Your task to perform on an android device: set the timer Image 0: 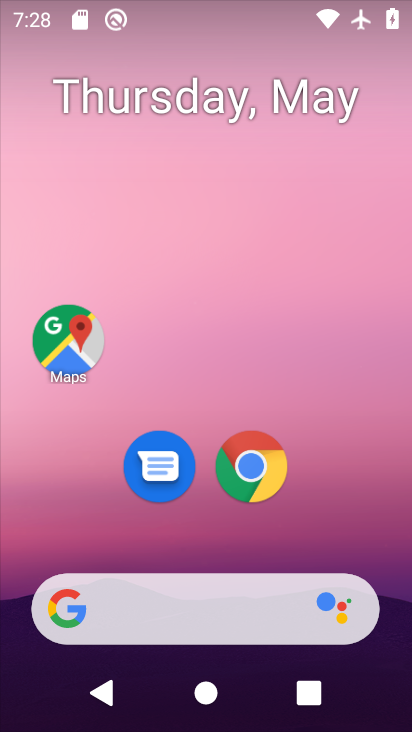
Step 0: drag from (386, 536) to (323, 159)
Your task to perform on an android device: set the timer Image 1: 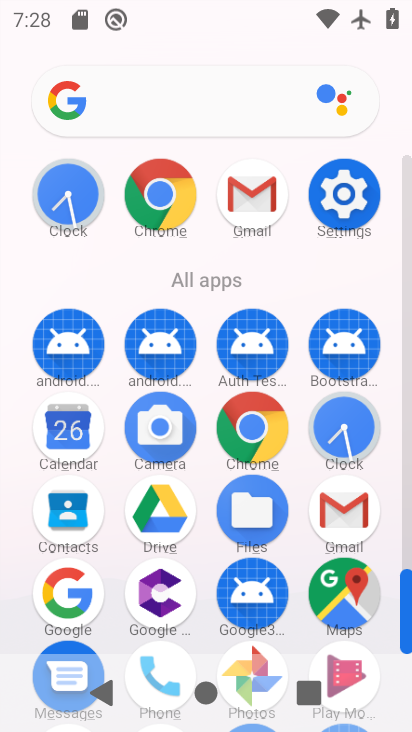
Step 1: click (334, 214)
Your task to perform on an android device: set the timer Image 2: 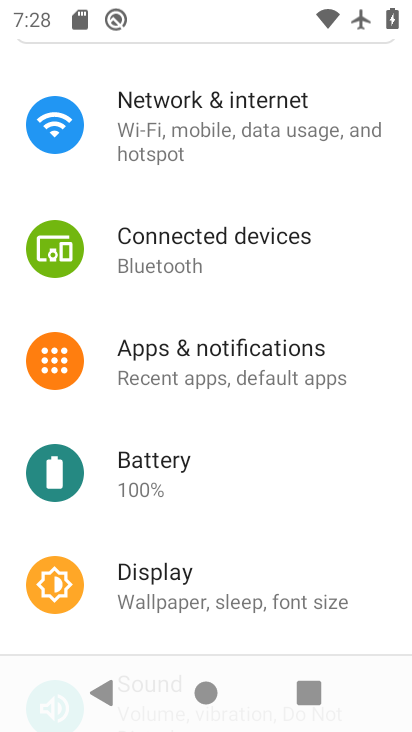
Step 2: press home button
Your task to perform on an android device: set the timer Image 3: 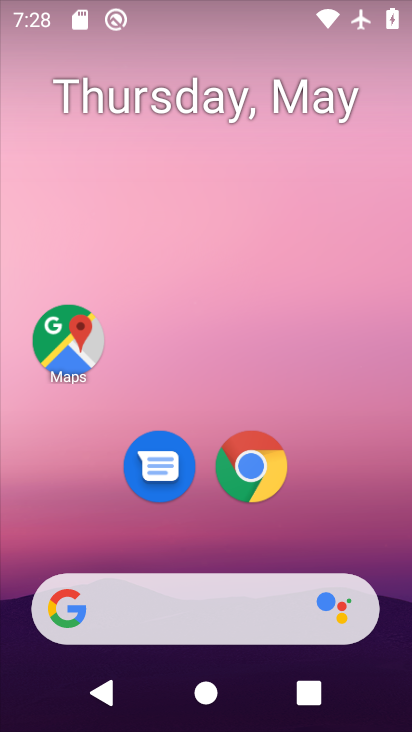
Step 3: drag from (326, 492) to (305, 190)
Your task to perform on an android device: set the timer Image 4: 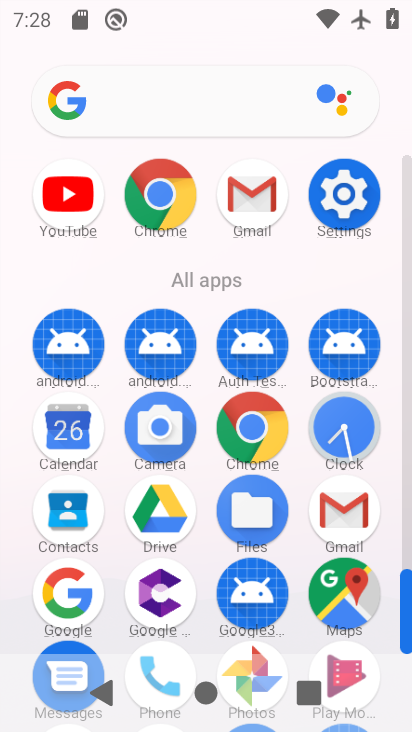
Step 4: click (360, 444)
Your task to perform on an android device: set the timer Image 5: 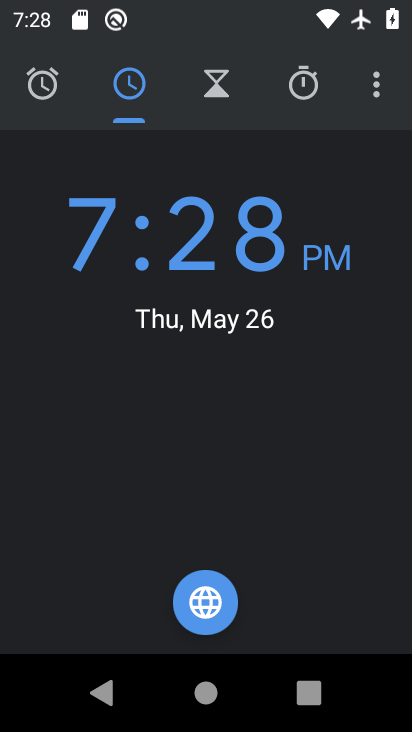
Step 5: click (218, 92)
Your task to perform on an android device: set the timer Image 6: 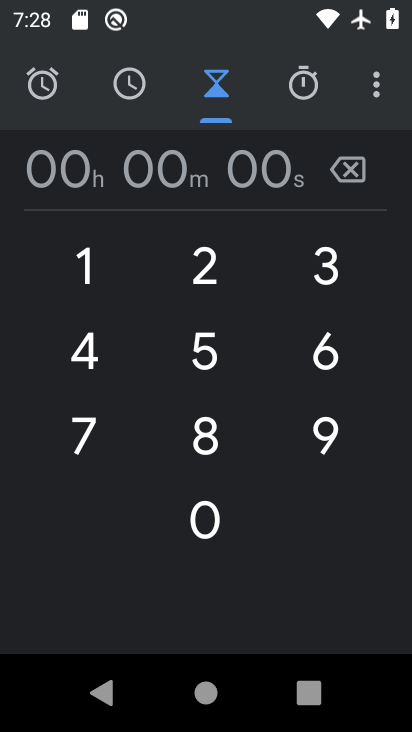
Step 6: task complete